Your task to perform on an android device: Go to Amazon Image 0: 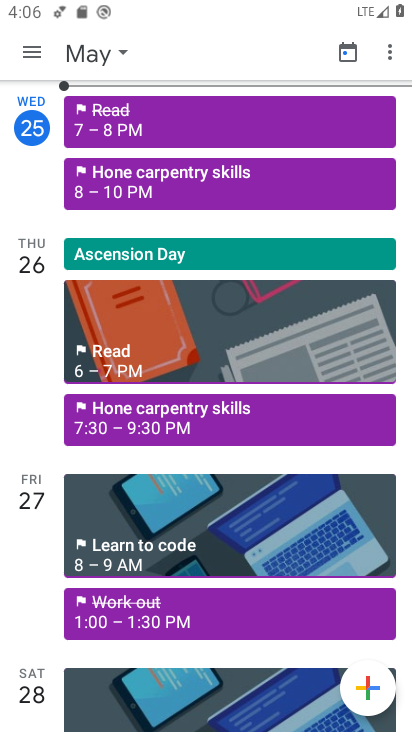
Step 0: press home button
Your task to perform on an android device: Go to Amazon Image 1: 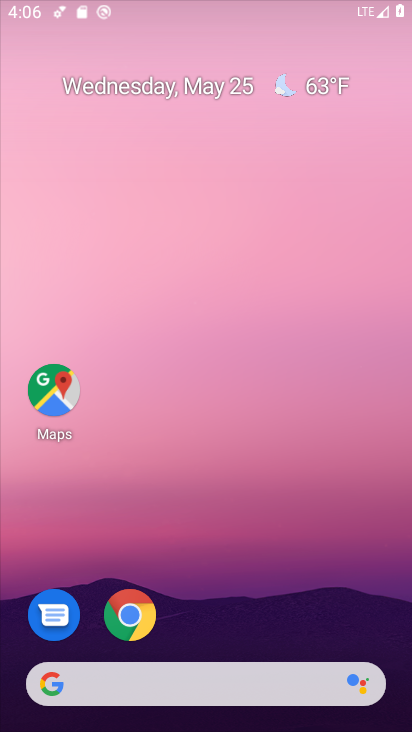
Step 1: click (142, 617)
Your task to perform on an android device: Go to Amazon Image 2: 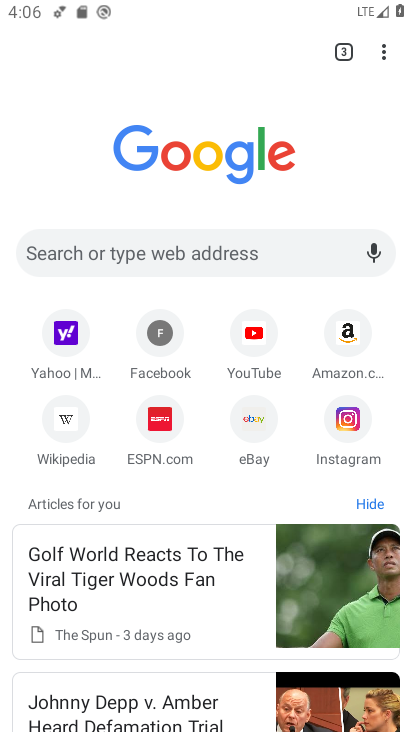
Step 2: click (340, 326)
Your task to perform on an android device: Go to Amazon Image 3: 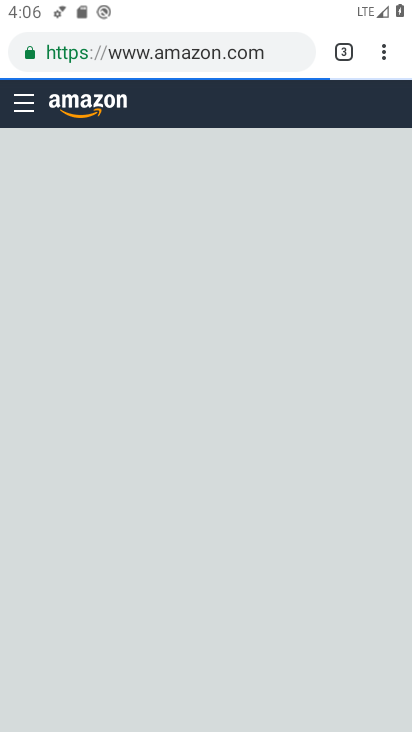
Step 3: task complete